Your task to perform on an android device: clear history in the chrome app Image 0: 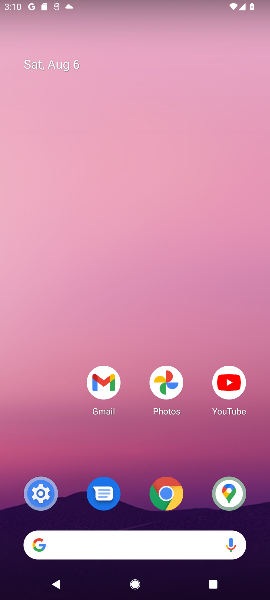
Step 0: drag from (156, 576) to (135, 217)
Your task to perform on an android device: clear history in the chrome app Image 1: 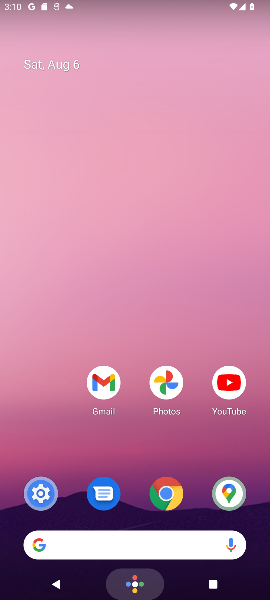
Step 1: drag from (156, 368) to (156, 117)
Your task to perform on an android device: clear history in the chrome app Image 2: 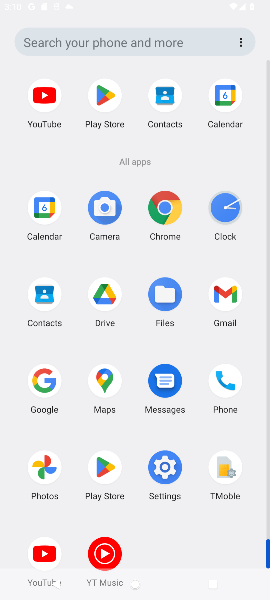
Step 2: drag from (168, 452) to (157, 196)
Your task to perform on an android device: clear history in the chrome app Image 3: 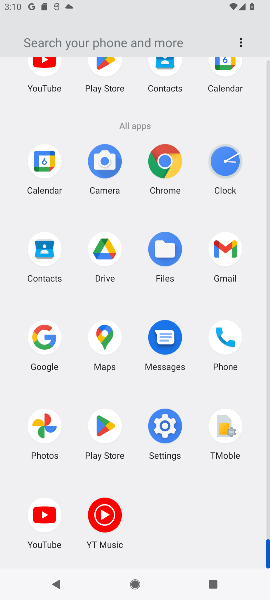
Step 3: drag from (165, 401) to (164, 175)
Your task to perform on an android device: clear history in the chrome app Image 4: 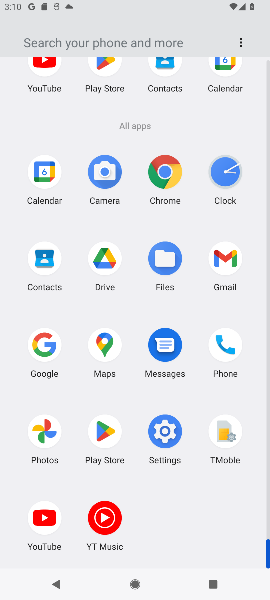
Step 4: click (165, 170)
Your task to perform on an android device: clear history in the chrome app Image 5: 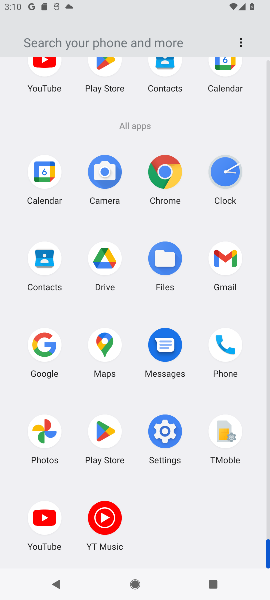
Step 5: click (166, 170)
Your task to perform on an android device: clear history in the chrome app Image 6: 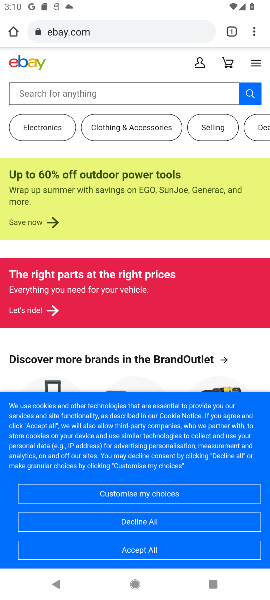
Step 6: drag from (250, 32) to (171, 119)
Your task to perform on an android device: clear history in the chrome app Image 7: 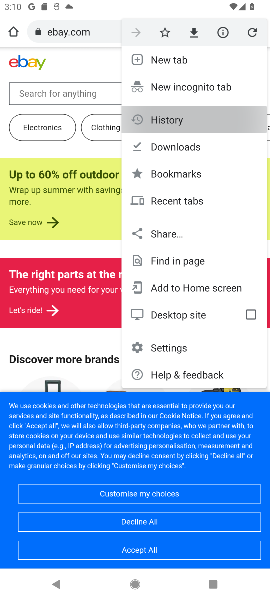
Step 7: click (171, 122)
Your task to perform on an android device: clear history in the chrome app Image 8: 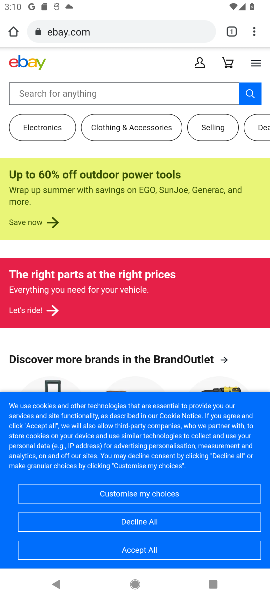
Step 8: click (171, 122)
Your task to perform on an android device: clear history in the chrome app Image 9: 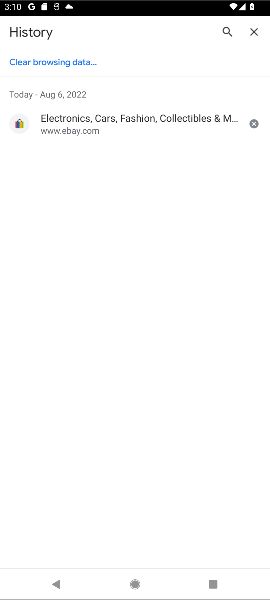
Step 9: click (171, 122)
Your task to perform on an android device: clear history in the chrome app Image 10: 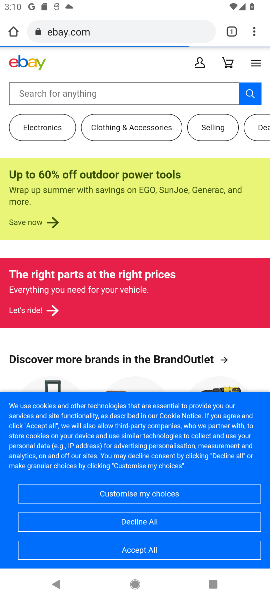
Step 10: task complete